Your task to perform on an android device: turn on airplane mode Image 0: 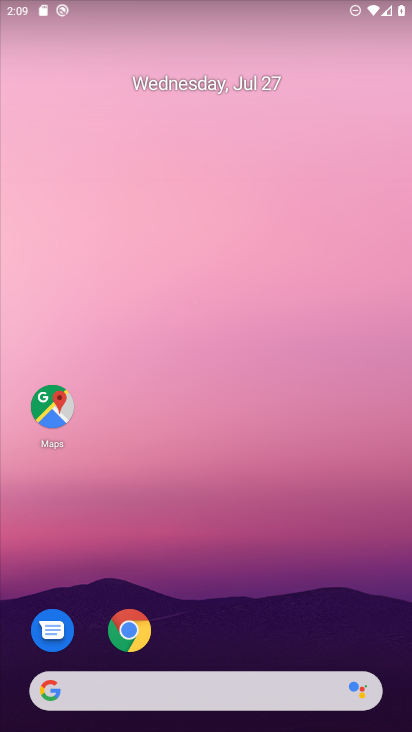
Step 0: drag from (386, 646) to (368, 100)
Your task to perform on an android device: turn on airplane mode Image 1: 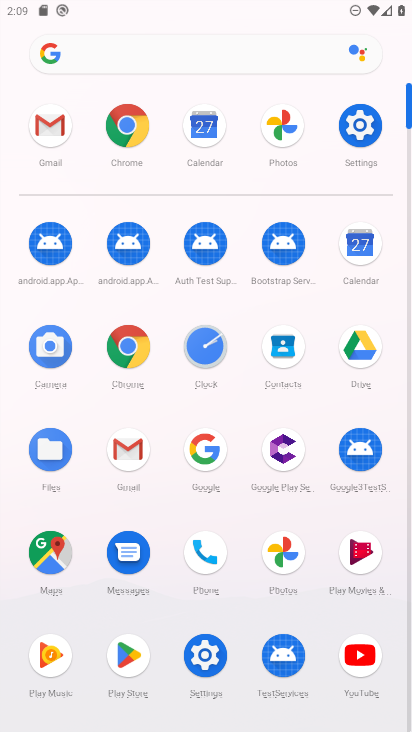
Step 1: click (204, 654)
Your task to perform on an android device: turn on airplane mode Image 2: 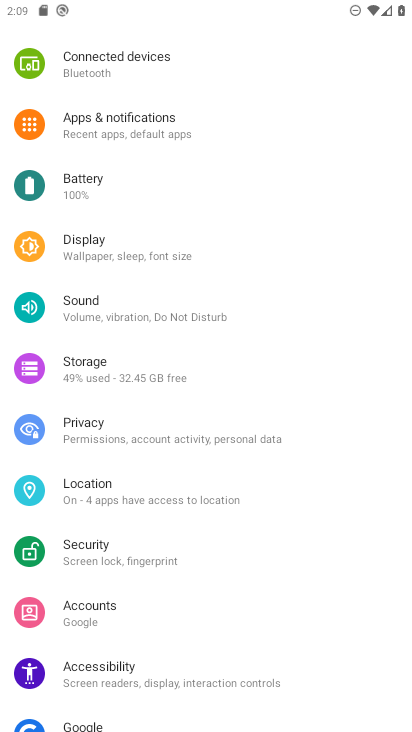
Step 2: drag from (262, 152) to (287, 410)
Your task to perform on an android device: turn on airplane mode Image 3: 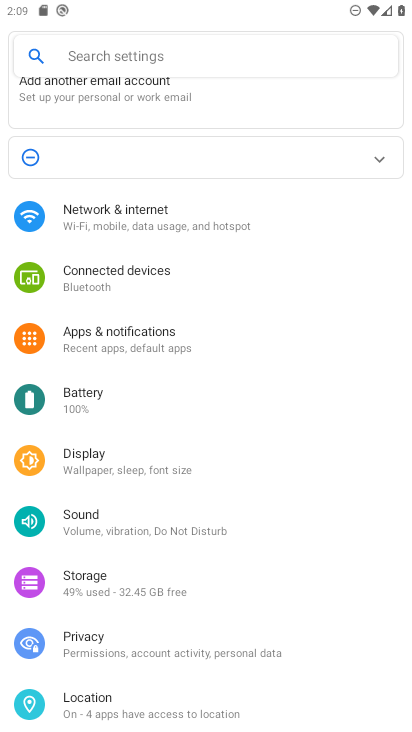
Step 3: click (92, 213)
Your task to perform on an android device: turn on airplane mode Image 4: 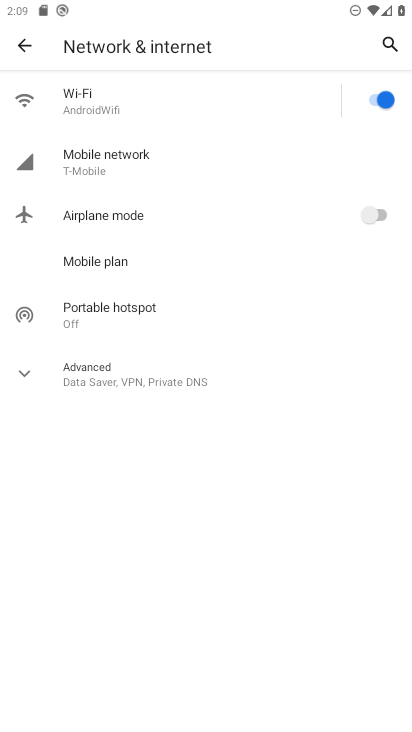
Step 4: click (385, 211)
Your task to perform on an android device: turn on airplane mode Image 5: 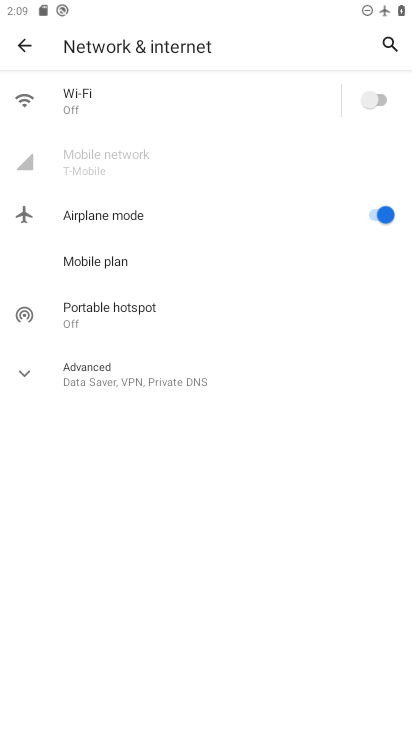
Step 5: task complete